Your task to perform on an android device: Open Google Chrome and click the shortcut for Amazon.com Image 0: 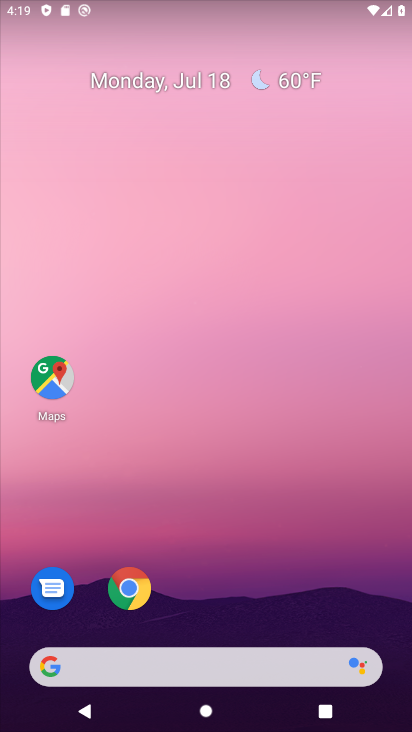
Step 0: click (126, 581)
Your task to perform on an android device: Open Google Chrome and click the shortcut for Amazon.com Image 1: 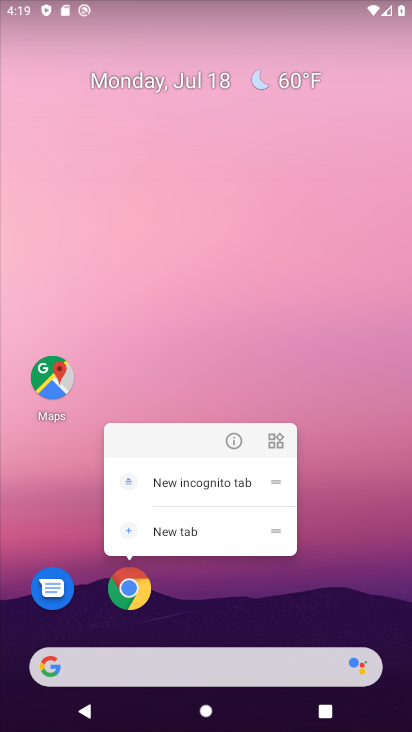
Step 1: click (128, 590)
Your task to perform on an android device: Open Google Chrome and click the shortcut for Amazon.com Image 2: 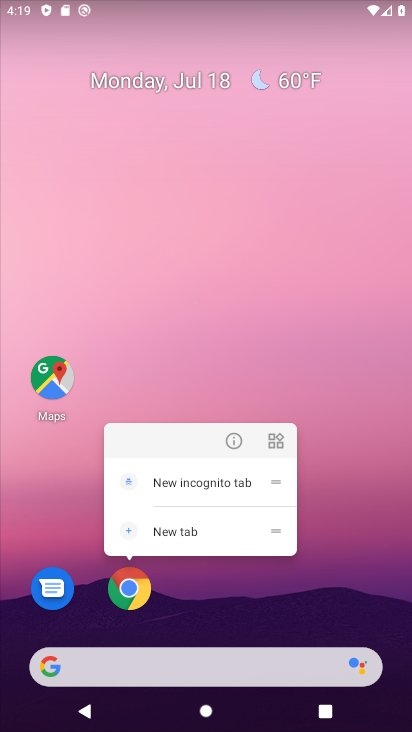
Step 2: click (125, 588)
Your task to perform on an android device: Open Google Chrome and click the shortcut for Amazon.com Image 3: 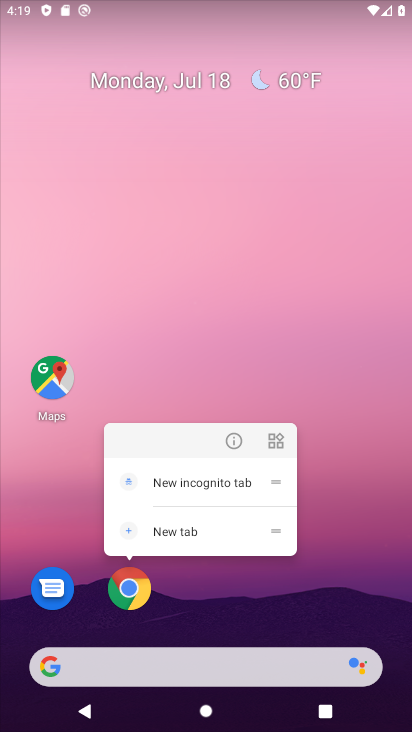
Step 3: click (124, 581)
Your task to perform on an android device: Open Google Chrome and click the shortcut for Amazon.com Image 4: 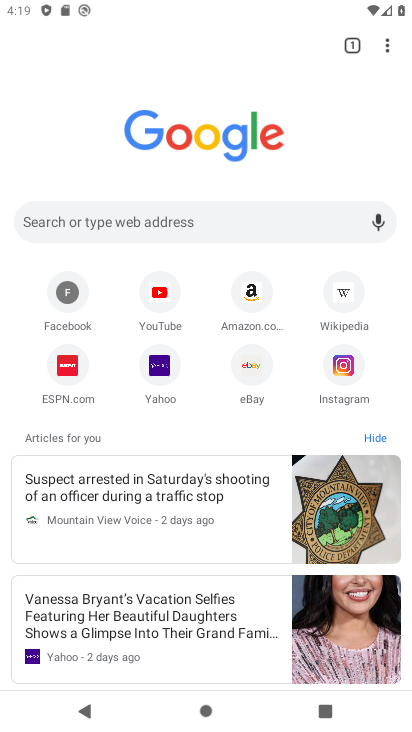
Step 4: click (248, 287)
Your task to perform on an android device: Open Google Chrome and click the shortcut for Amazon.com Image 5: 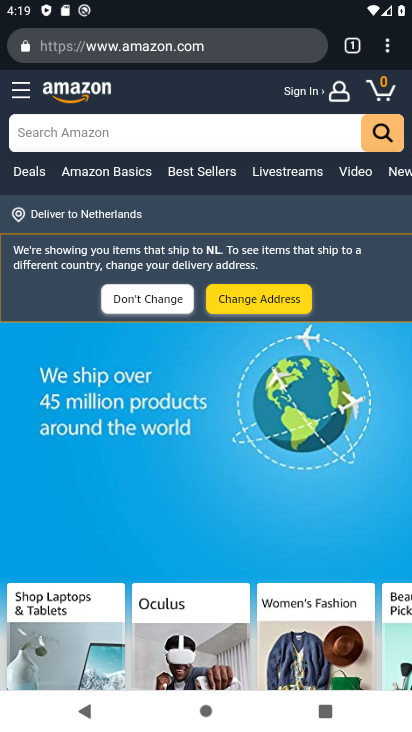
Step 5: task complete